Your task to perform on an android device: turn smart compose on in the gmail app Image 0: 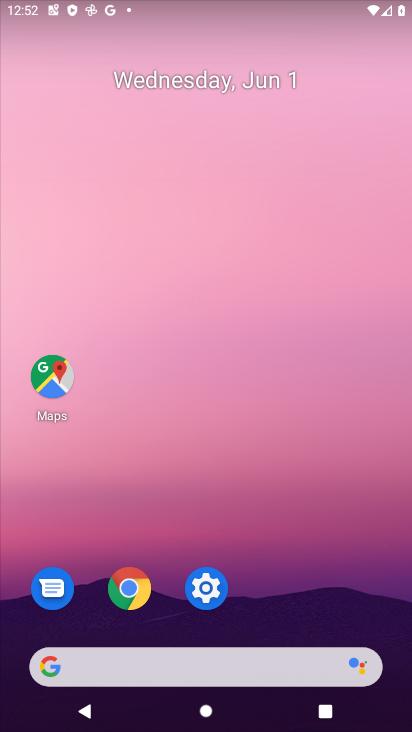
Step 0: drag from (230, 681) to (236, 322)
Your task to perform on an android device: turn smart compose on in the gmail app Image 1: 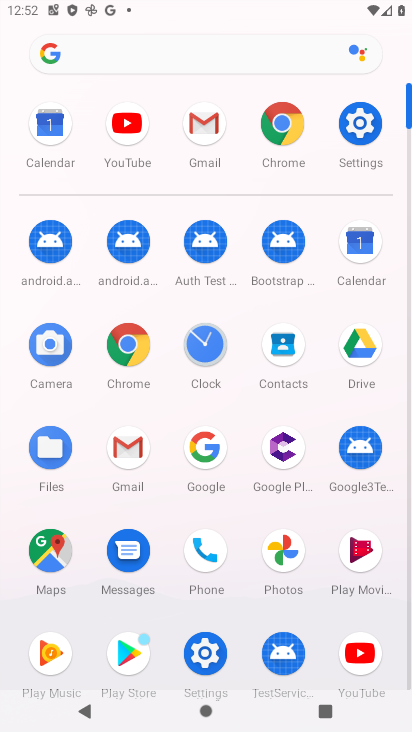
Step 1: click (218, 121)
Your task to perform on an android device: turn smart compose on in the gmail app Image 2: 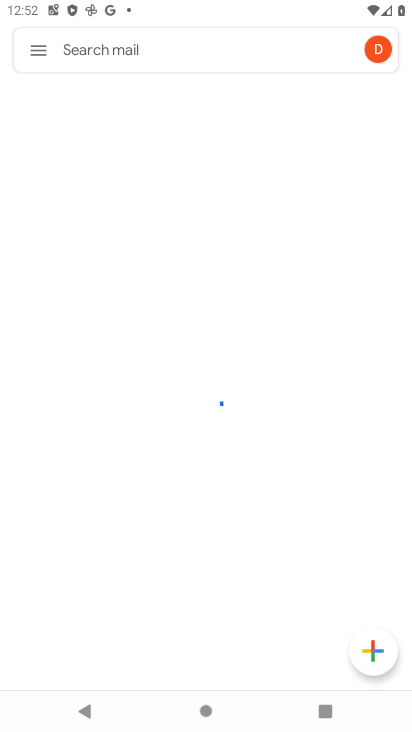
Step 2: click (37, 45)
Your task to perform on an android device: turn smart compose on in the gmail app Image 3: 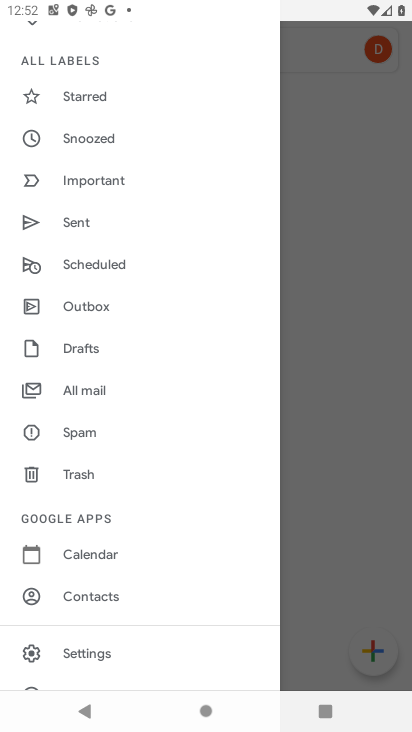
Step 3: click (87, 642)
Your task to perform on an android device: turn smart compose on in the gmail app Image 4: 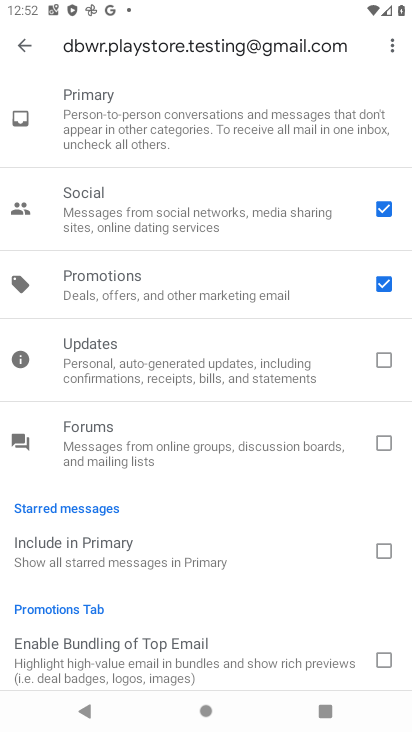
Step 4: click (40, 55)
Your task to perform on an android device: turn smart compose on in the gmail app Image 5: 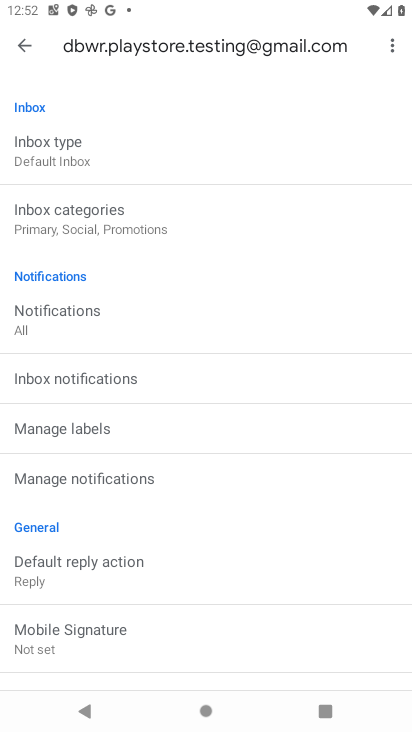
Step 5: drag from (198, 621) to (218, 567)
Your task to perform on an android device: turn smart compose on in the gmail app Image 6: 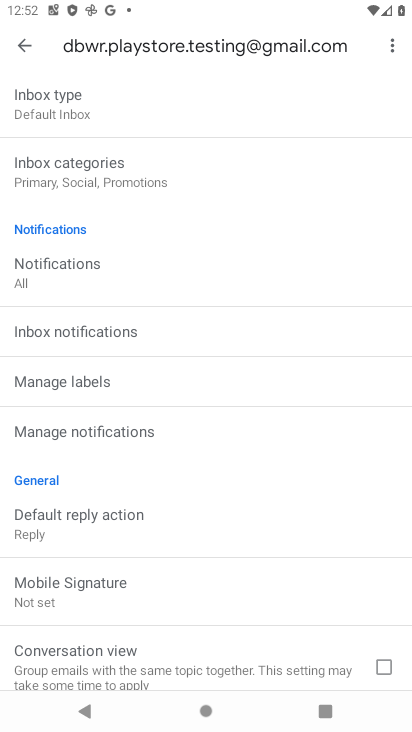
Step 6: drag from (202, 548) to (337, 199)
Your task to perform on an android device: turn smart compose on in the gmail app Image 7: 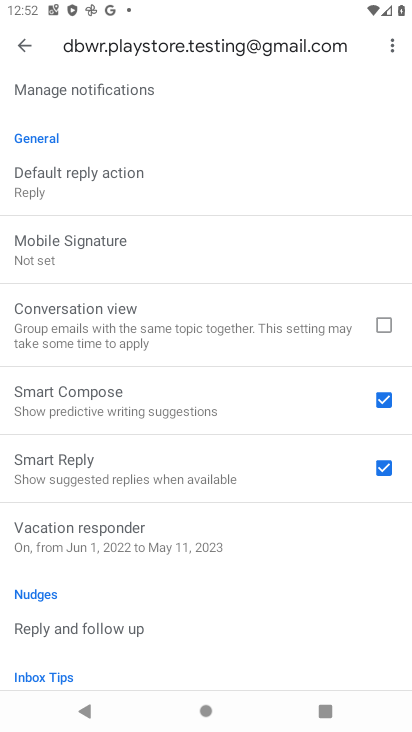
Step 7: click (386, 393)
Your task to perform on an android device: turn smart compose on in the gmail app Image 8: 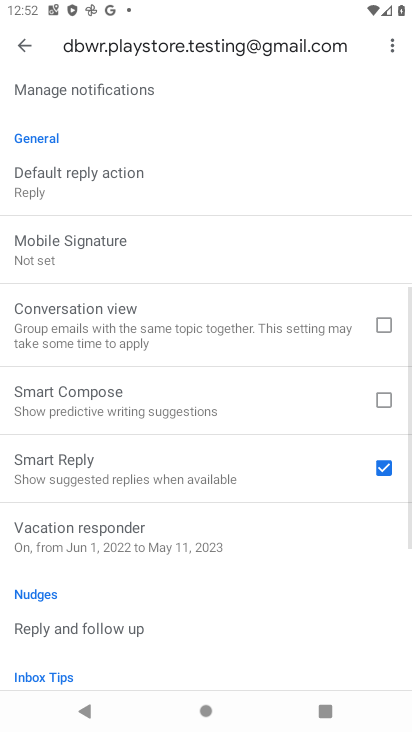
Step 8: click (386, 393)
Your task to perform on an android device: turn smart compose on in the gmail app Image 9: 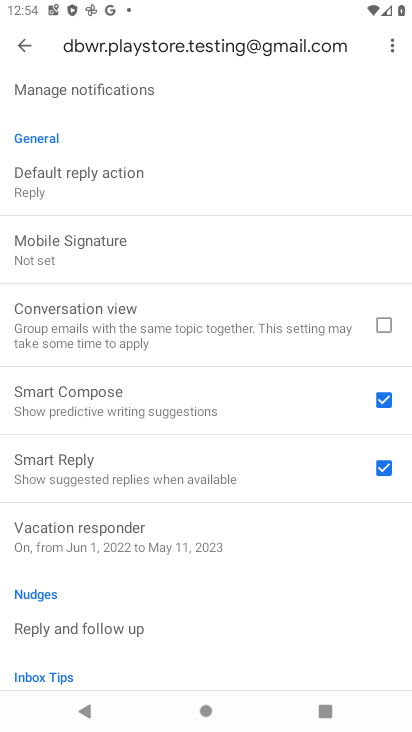
Step 9: task complete